Your task to perform on an android device: open app "Facebook" (install if not already installed) and enter user name: "resultants@gmail.com" and password: "earned" Image 0: 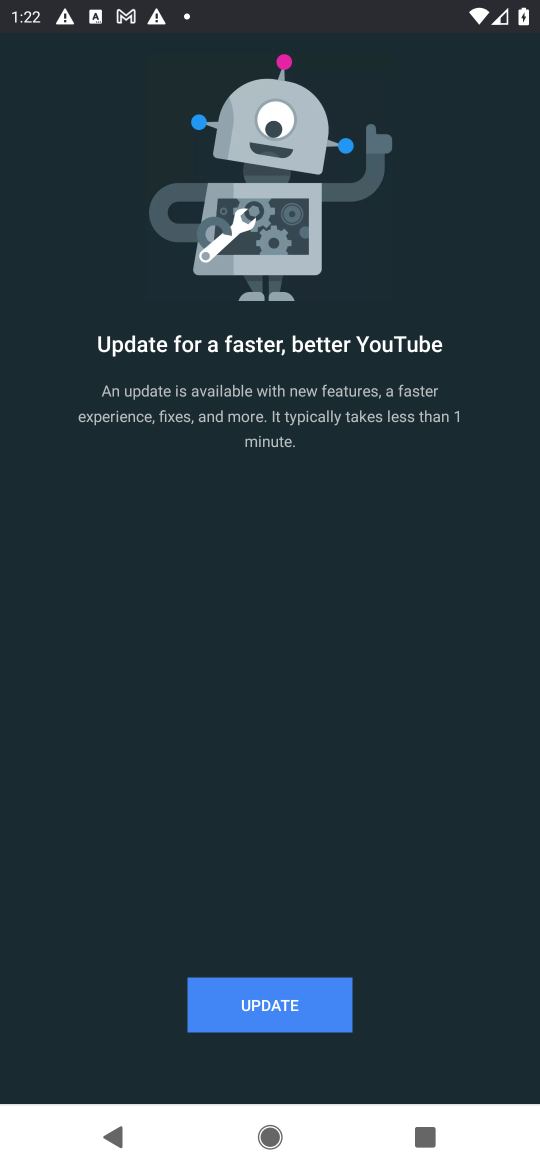
Step 0: press home button
Your task to perform on an android device: open app "Facebook" (install if not already installed) and enter user name: "resultants@gmail.com" and password: "earned" Image 1: 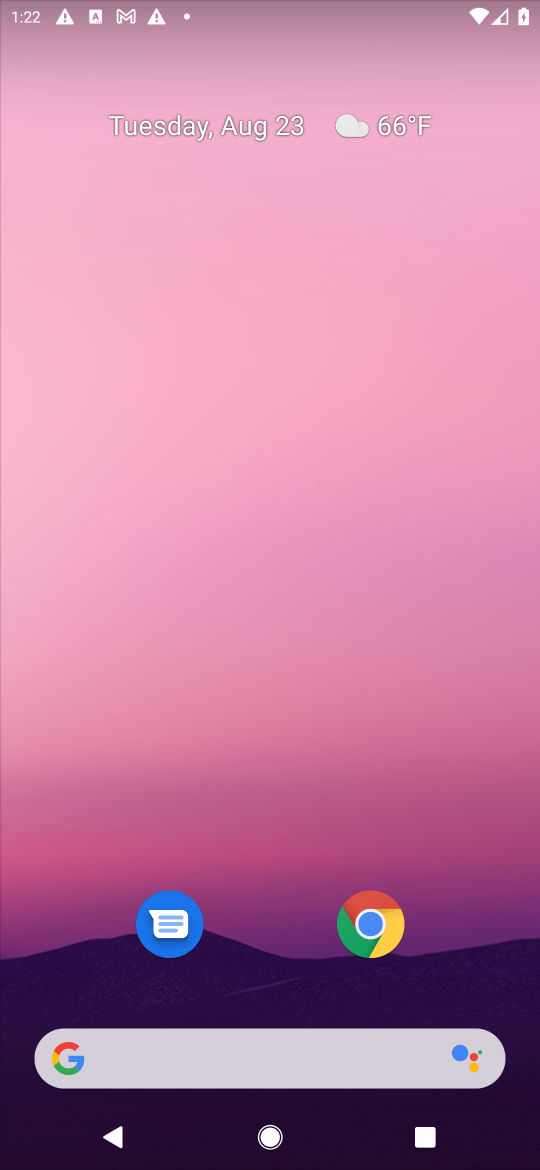
Step 1: drag from (473, 976) to (494, 112)
Your task to perform on an android device: open app "Facebook" (install if not already installed) and enter user name: "resultants@gmail.com" and password: "earned" Image 2: 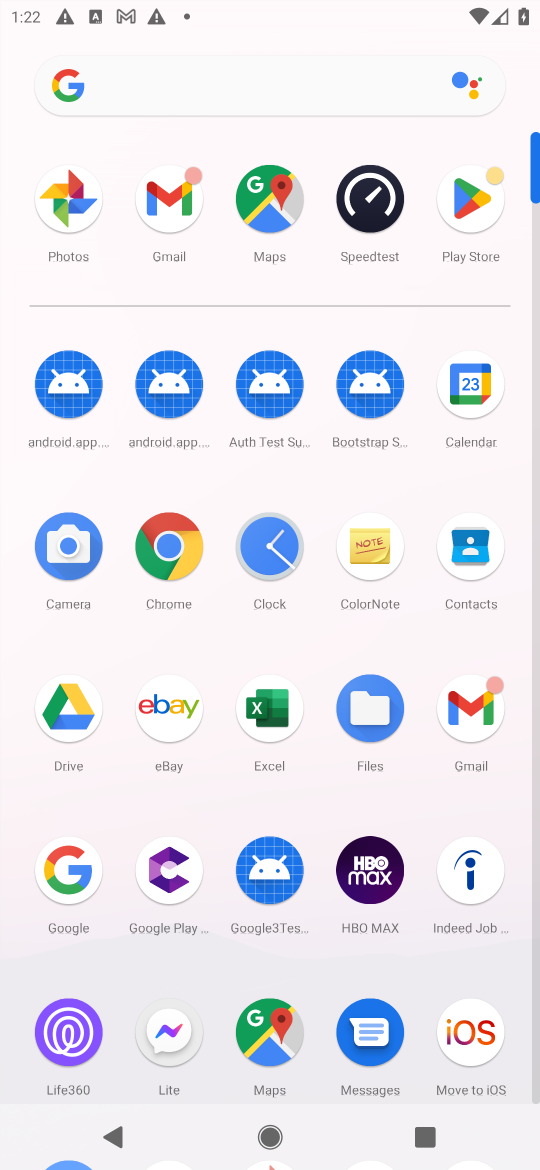
Step 2: click (470, 195)
Your task to perform on an android device: open app "Facebook" (install if not already installed) and enter user name: "resultants@gmail.com" and password: "earned" Image 3: 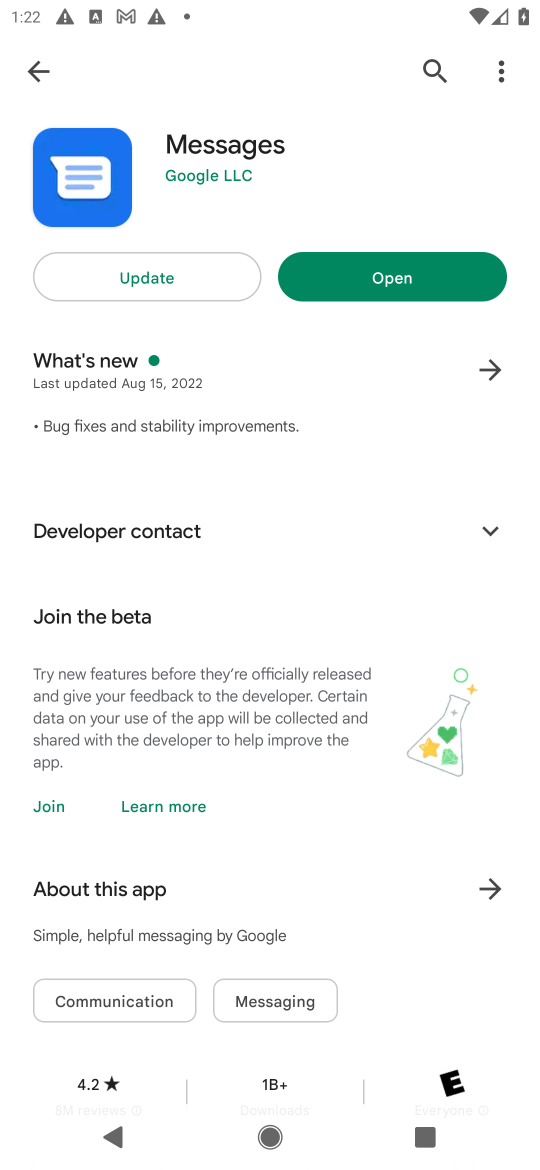
Step 3: press back button
Your task to perform on an android device: open app "Facebook" (install if not already installed) and enter user name: "resultants@gmail.com" and password: "earned" Image 4: 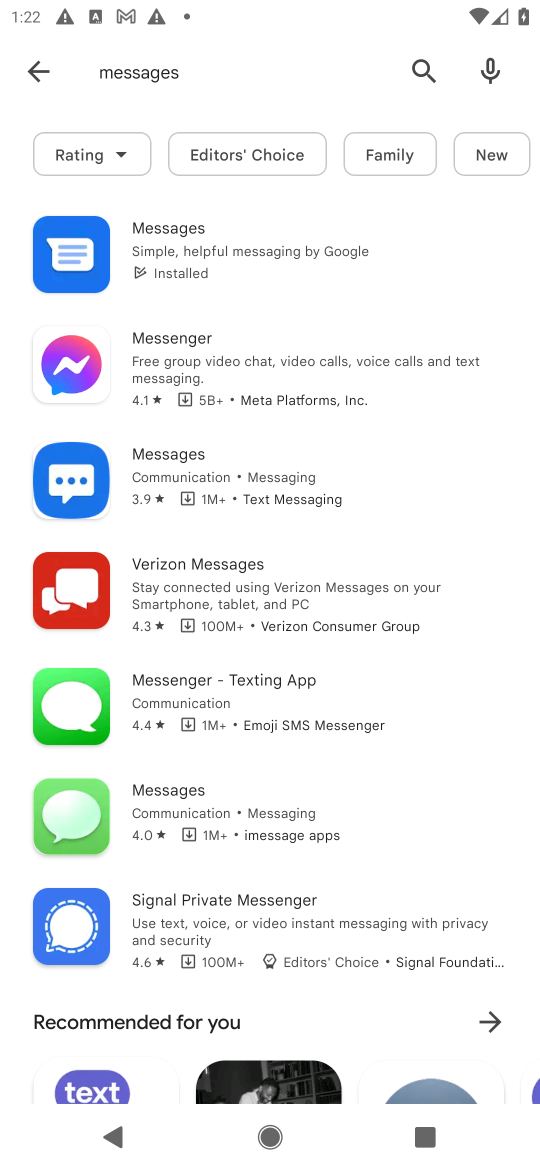
Step 4: press back button
Your task to perform on an android device: open app "Facebook" (install if not already installed) and enter user name: "resultants@gmail.com" and password: "earned" Image 5: 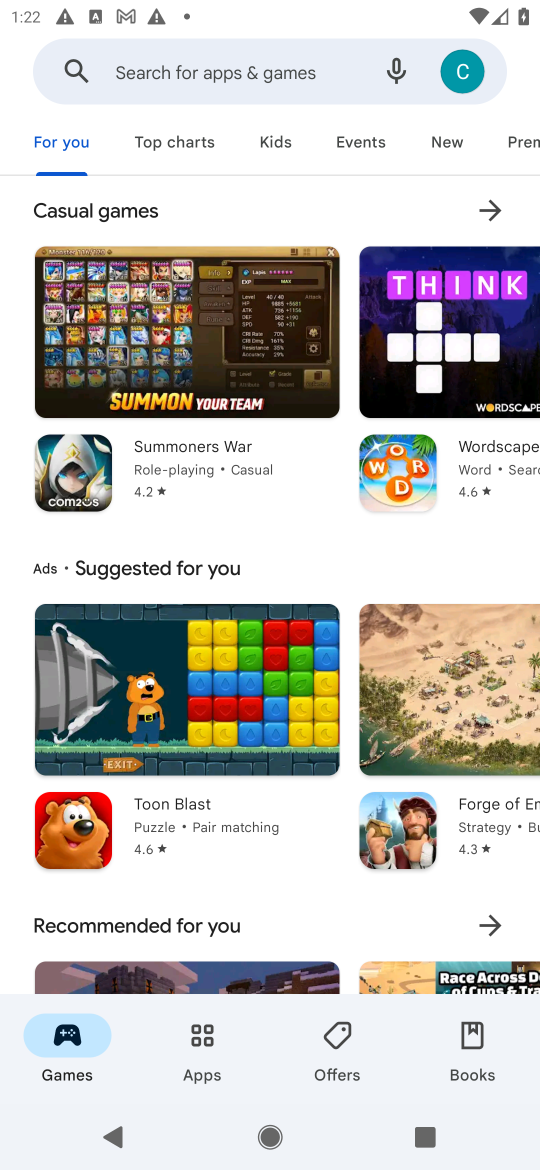
Step 5: click (266, 72)
Your task to perform on an android device: open app "Facebook" (install if not already installed) and enter user name: "resultants@gmail.com" and password: "earned" Image 6: 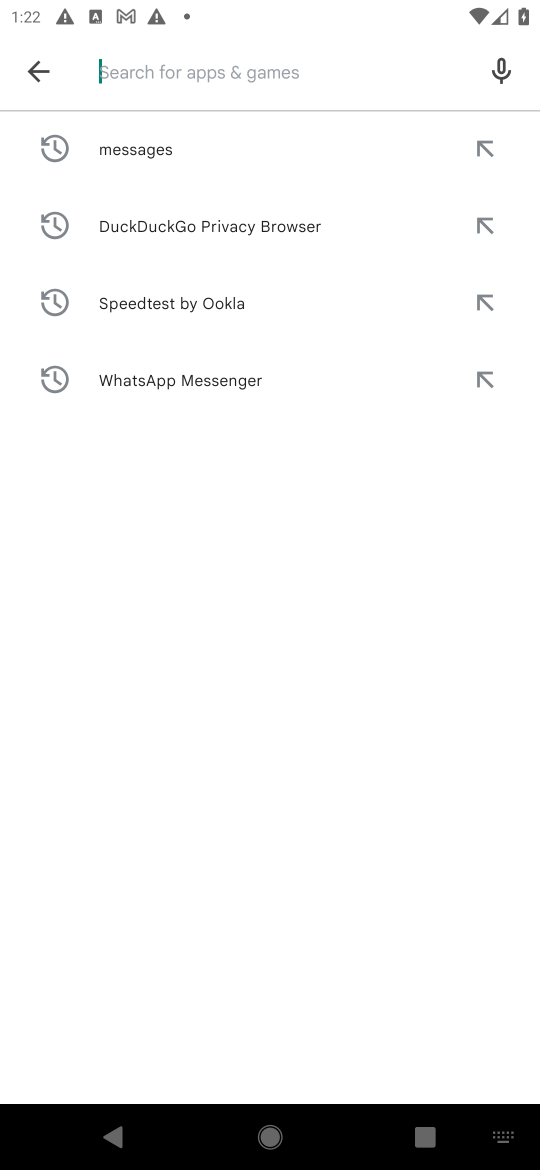
Step 6: press enter
Your task to perform on an android device: open app "Facebook" (install if not already installed) and enter user name: "resultants@gmail.com" and password: "earned" Image 7: 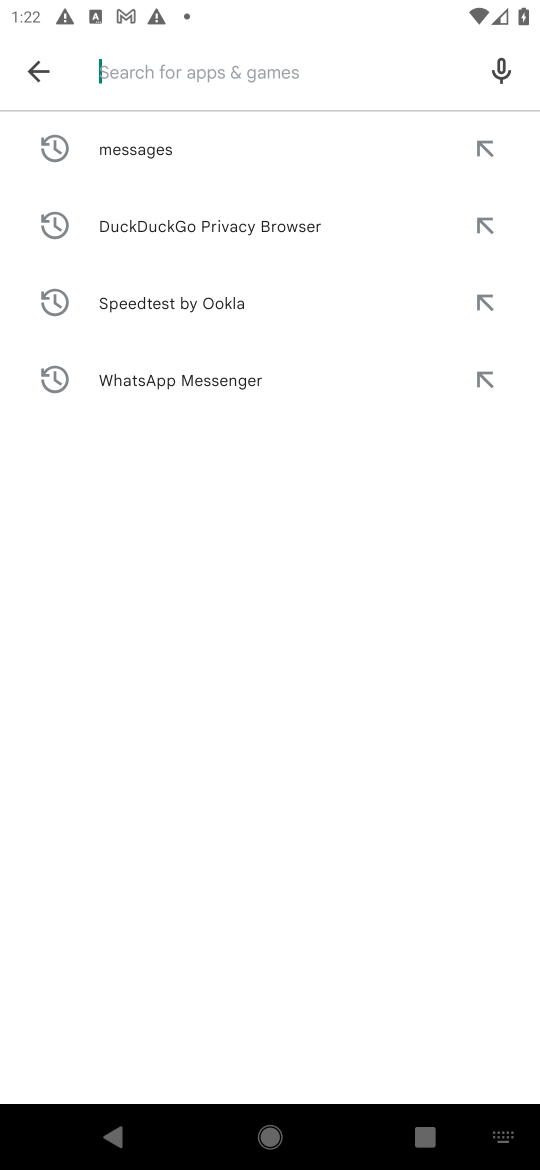
Step 7: type "facebook"
Your task to perform on an android device: open app "Facebook" (install if not already installed) and enter user name: "resultants@gmail.com" and password: "earned" Image 8: 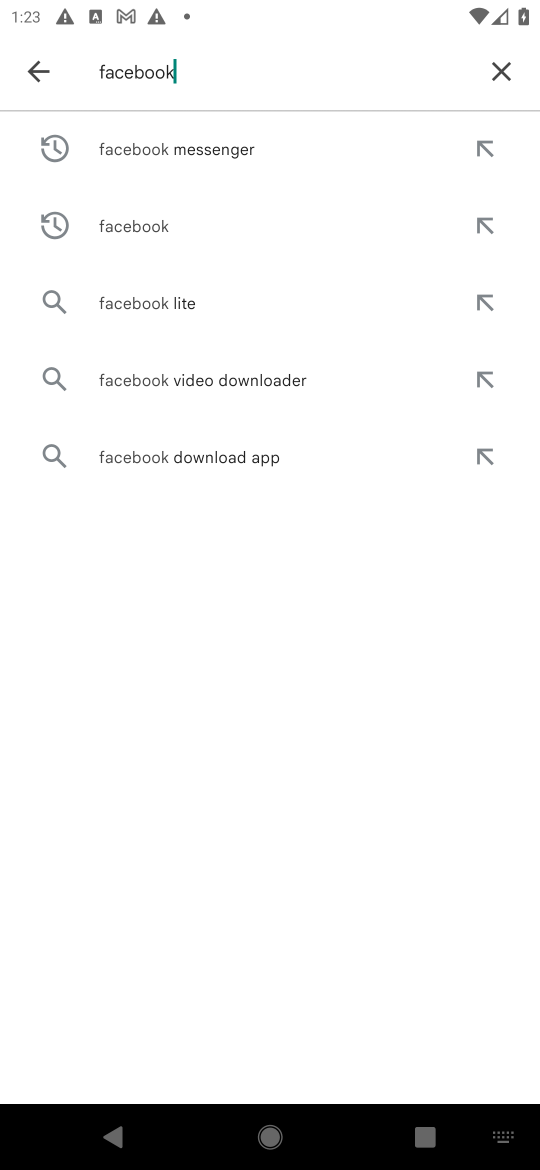
Step 8: click (179, 228)
Your task to perform on an android device: open app "Facebook" (install if not already installed) and enter user name: "resultants@gmail.com" and password: "earned" Image 9: 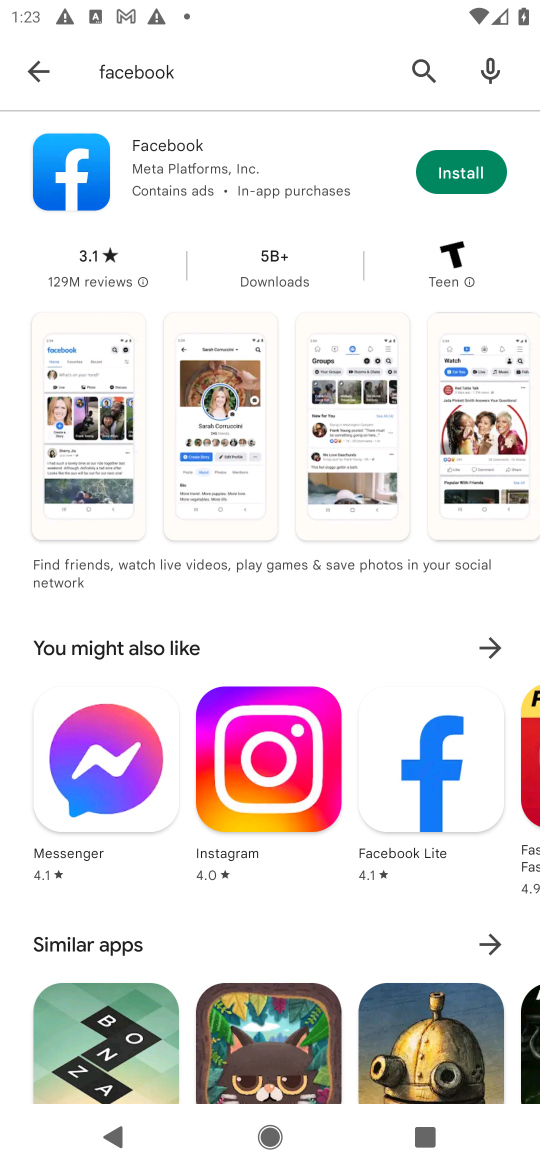
Step 9: click (467, 182)
Your task to perform on an android device: open app "Facebook" (install if not already installed) and enter user name: "resultants@gmail.com" and password: "earned" Image 10: 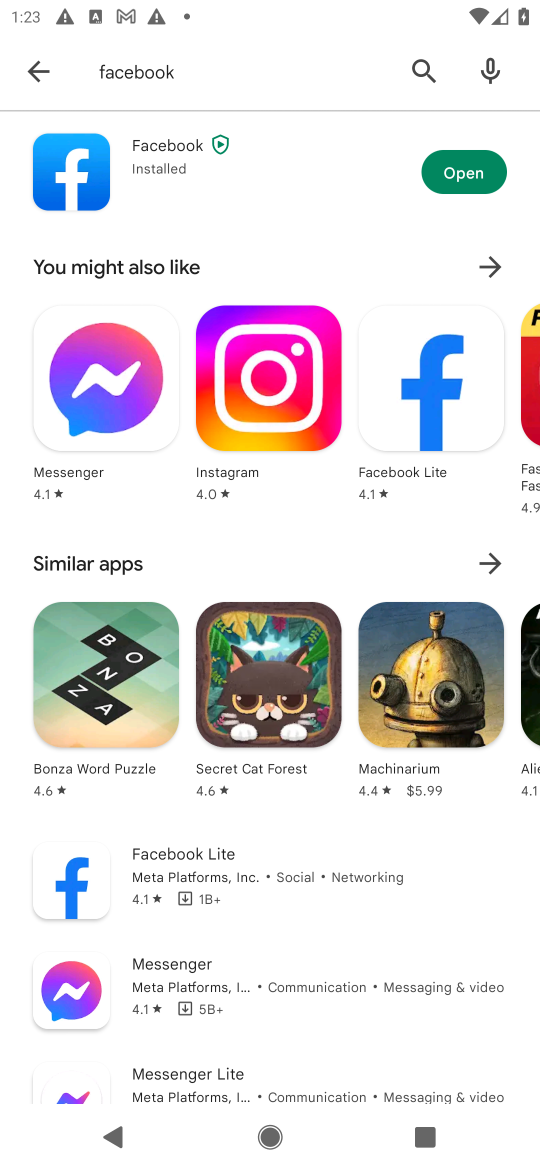
Step 10: click (466, 169)
Your task to perform on an android device: open app "Facebook" (install if not already installed) and enter user name: "resultants@gmail.com" and password: "earned" Image 11: 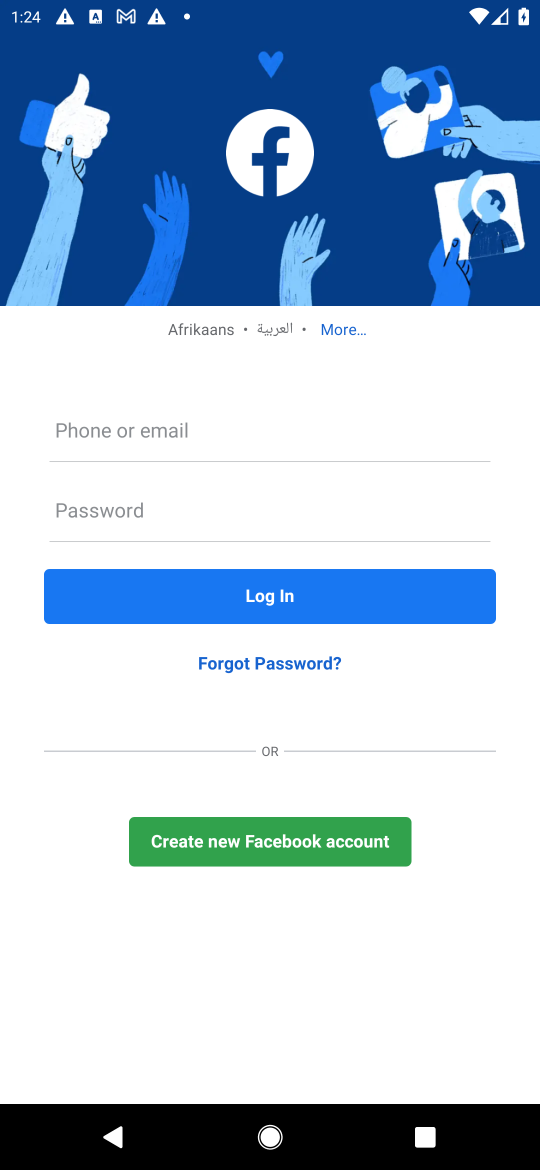
Step 11: click (210, 428)
Your task to perform on an android device: open app "Facebook" (install if not already installed) and enter user name: "resultants@gmail.com" and password: "earned" Image 12: 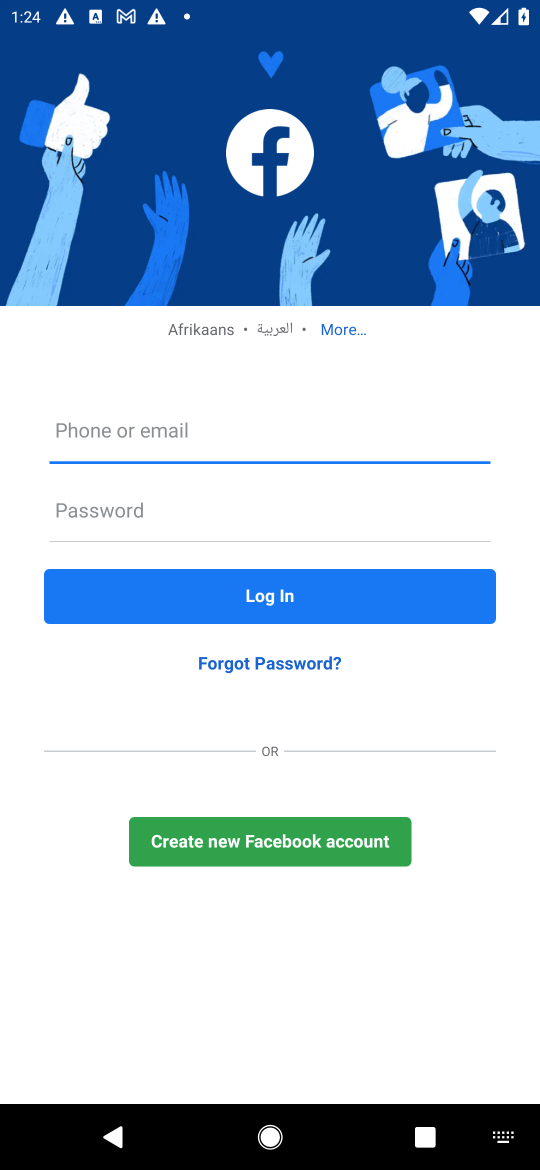
Step 12: type "resultants@gmail.com"
Your task to perform on an android device: open app "Facebook" (install if not already installed) and enter user name: "resultants@gmail.com" and password: "earned" Image 13: 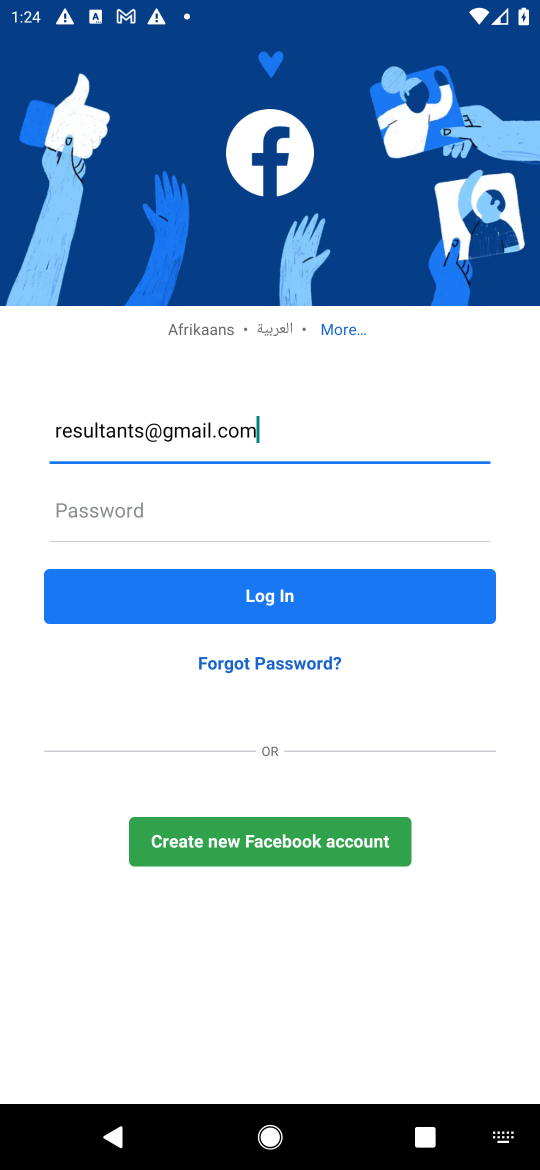
Step 13: press enter
Your task to perform on an android device: open app "Facebook" (install if not already installed) and enter user name: "resultants@gmail.com" and password: "earned" Image 14: 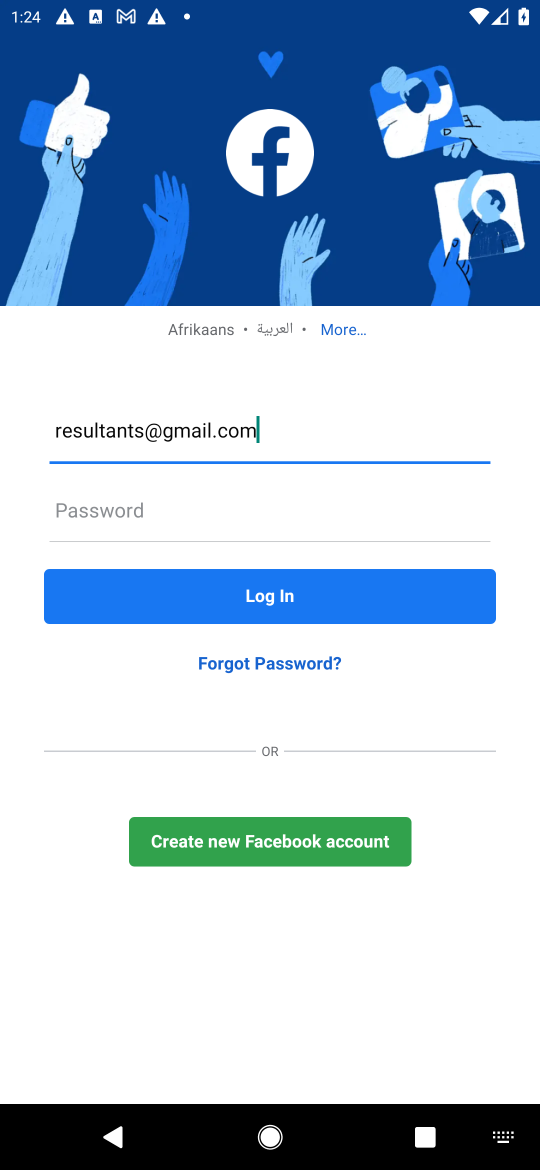
Step 14: click (262, 508)
Your task to perform on an android device: open app "Facebook" (install if not already installed) and enter user name: "resultants@gmail.com" and password: "earned" Image 15: 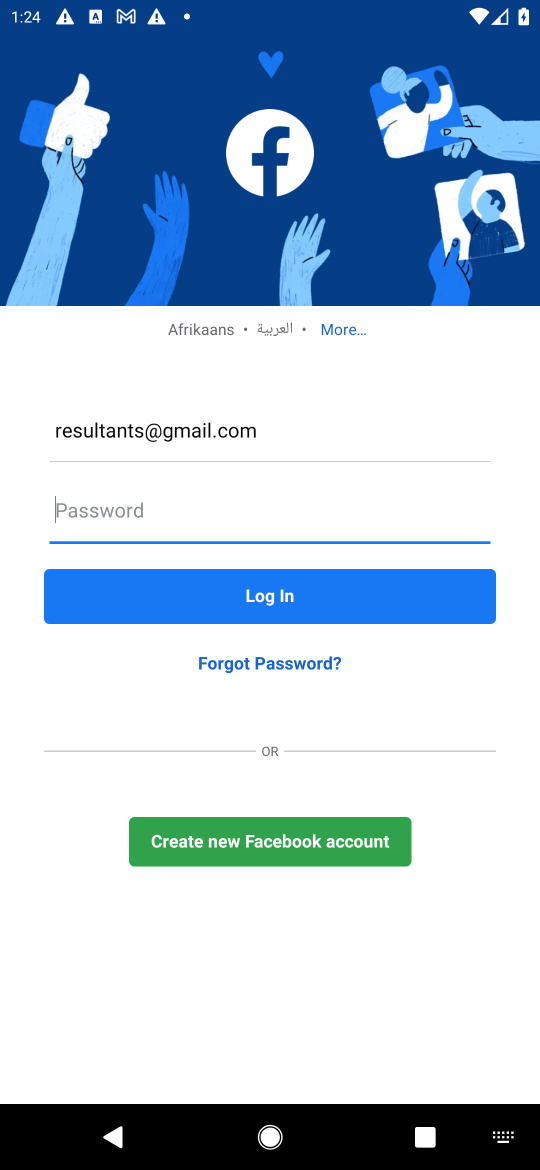
Step 15: type "earned"
Your task to perform on an android device: open app "Facebook" (install if not already installed) and enter user name: "resultants@gmail.com" and password: "earned" Image 16: 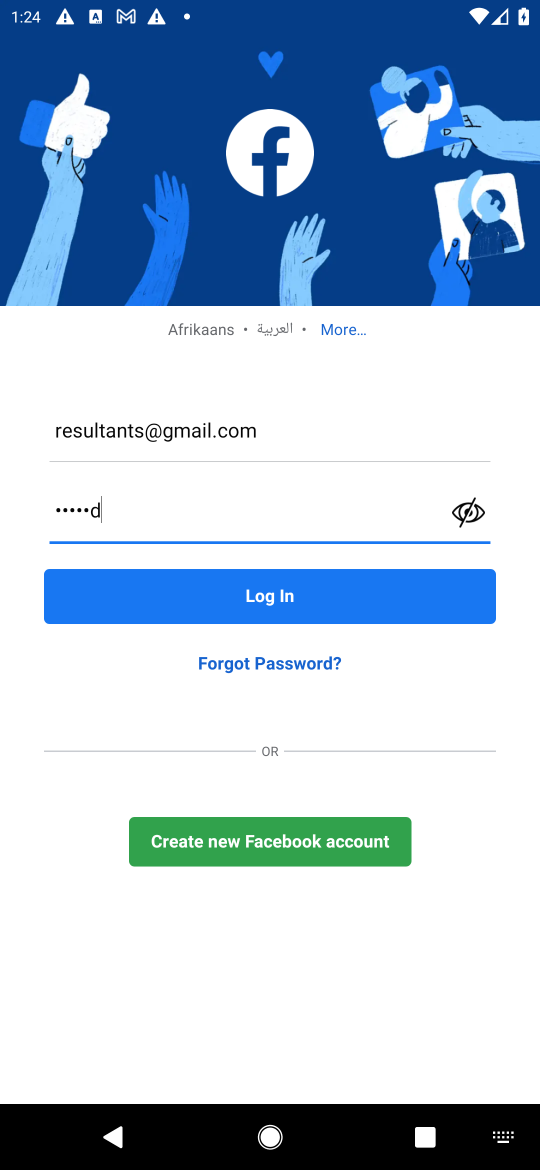
Step 16: press enter
Your task to perform on an android device: open app "Facebook" (install if not already installed) and enter user name: "resultants@gmail.com" and password: "earned" Image 17: 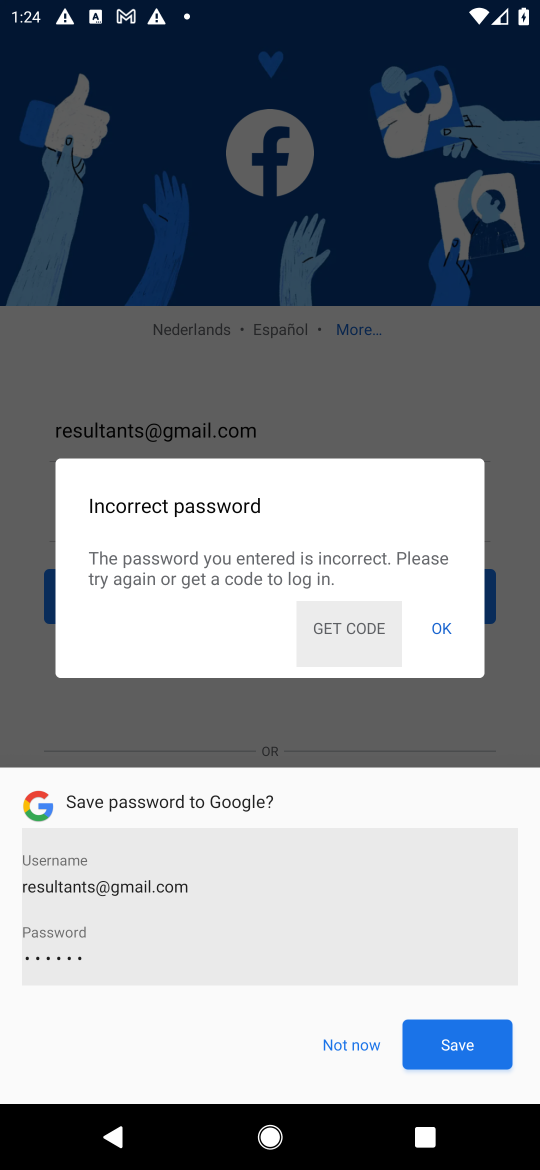
Step 17: task complete